Your task to perform on an android device: Turn off the flashlight Image 0: 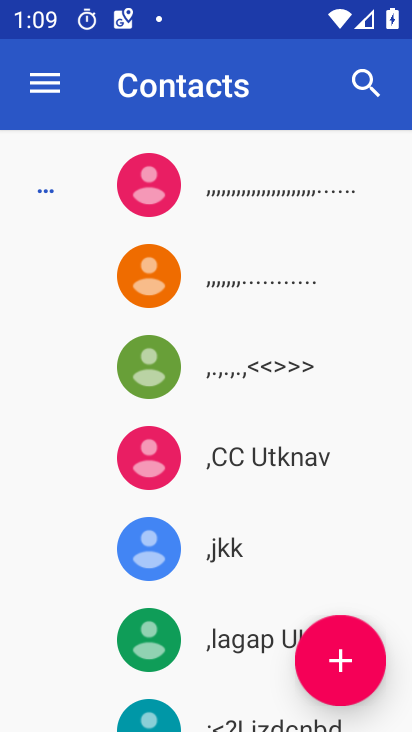
Step 0: press home button
Your task to perform on an android device: Turn off the flashlight Image 1: 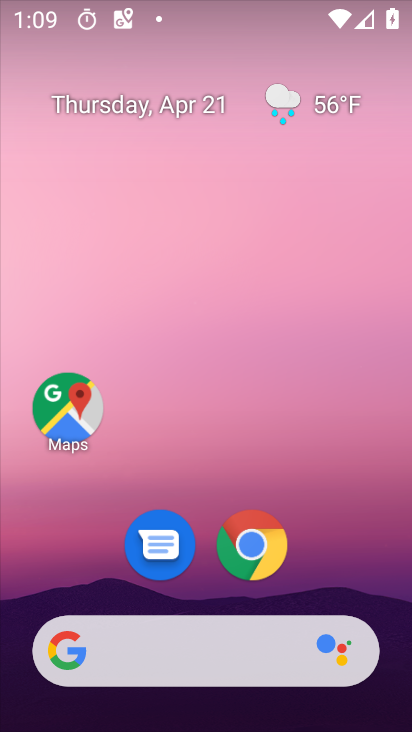
Step 1: task complete